Your task to perform on an android device: see tabs open on other devices in the chrome app Image 0: 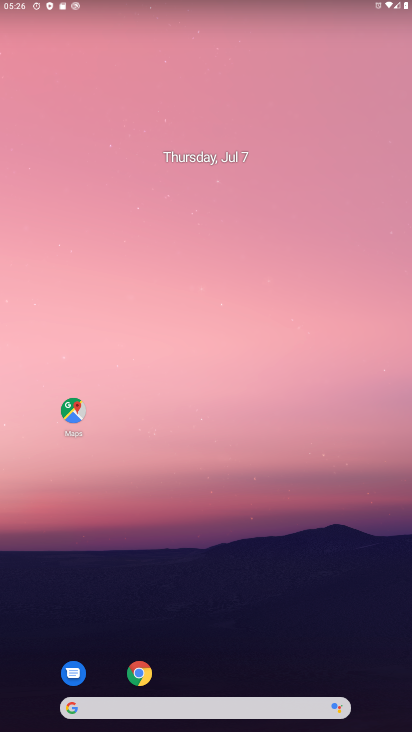
Step 0: drag from (307, 714) to (317, 117)
Your task to perform on an android device: see tabs open on other devices in the chrome app Image 1: 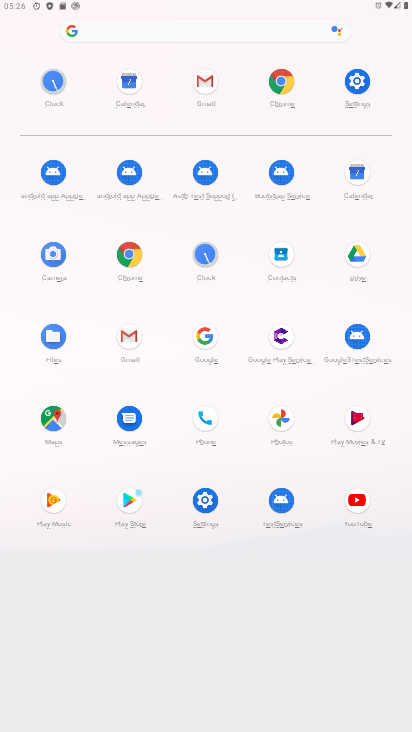
Step 1: click (119, 254)
Your task to perform on an android device: see tabs open on other devices in the chrome app Image 2: 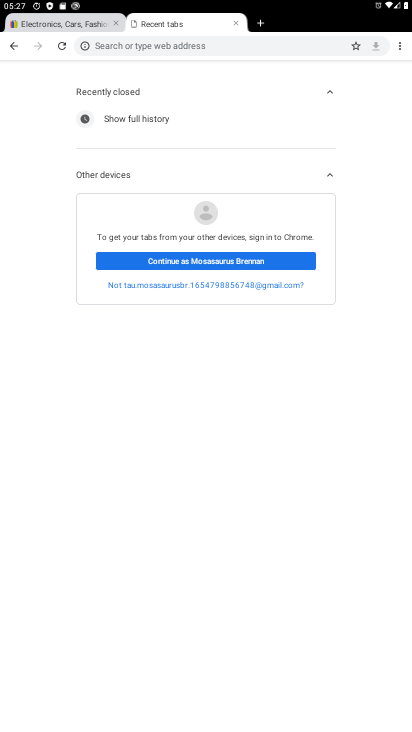
Step 2: drag from (401, 46) to (315, 121)
Your task to perform on an android device: see tabs open on other devices in the chrome app Image 3: 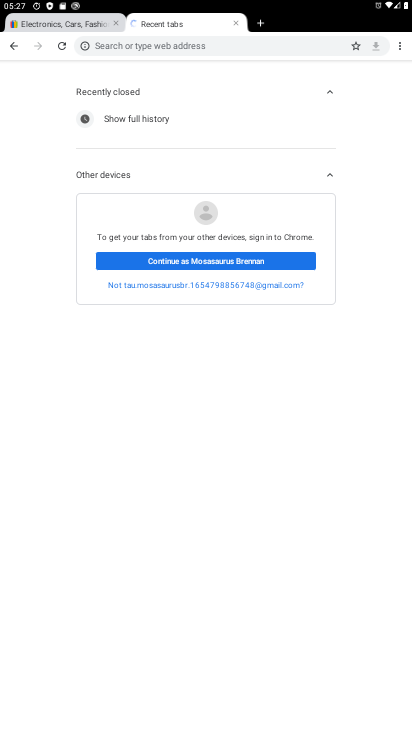
Step 3: click (314, 122)
Your task to perform on an android device: see tabs open on other devices in the chrome app Image 4: 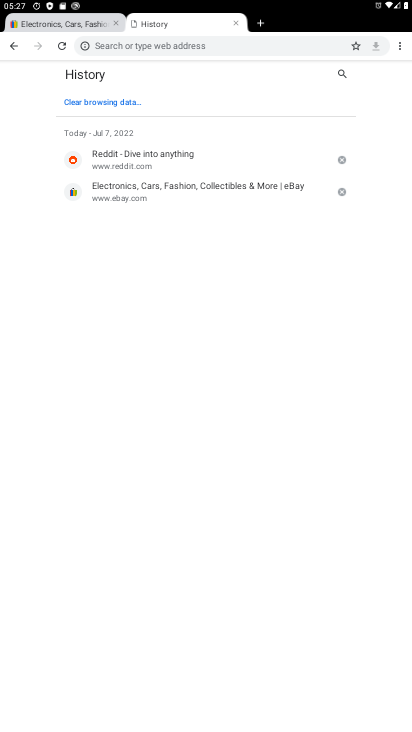
Step 4: task complete